Your task to perform on an android device: Check the news Image 0: 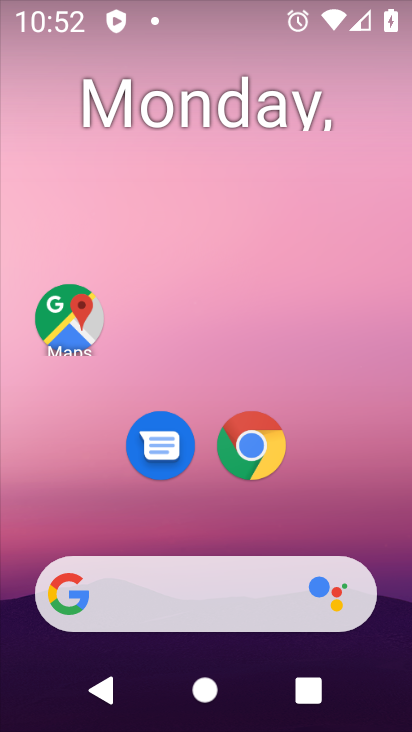
Step 0: click (258, 444)
Your task to perform on an android device: Check the news Image 1: 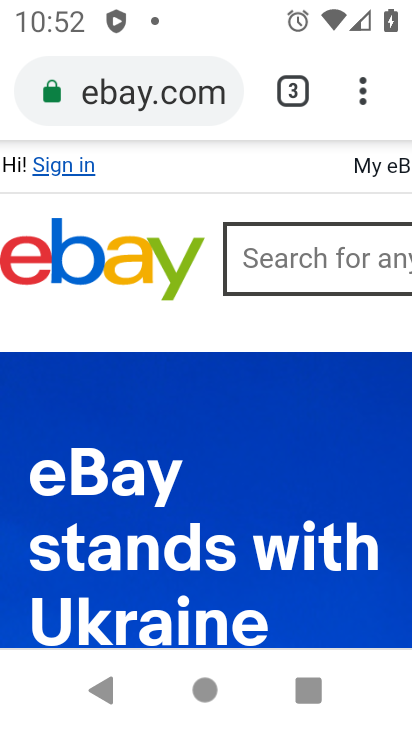
Step 1: click (293, 88)
Your task to perform on an android device: Check the news Image 2: 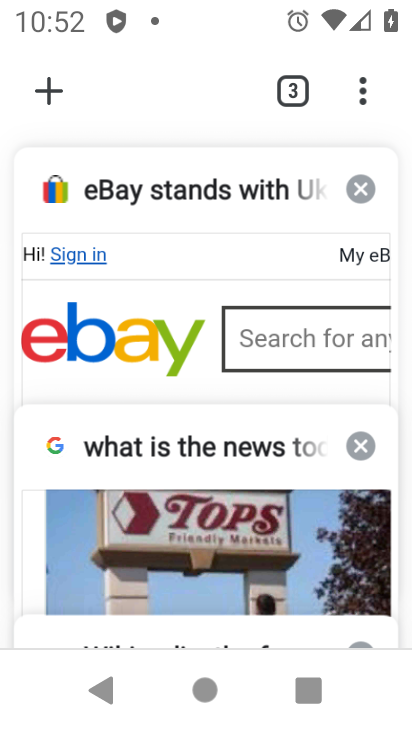
Step 2: click (51, 80)
Your task to perform on an android device: Check the news Image 3: 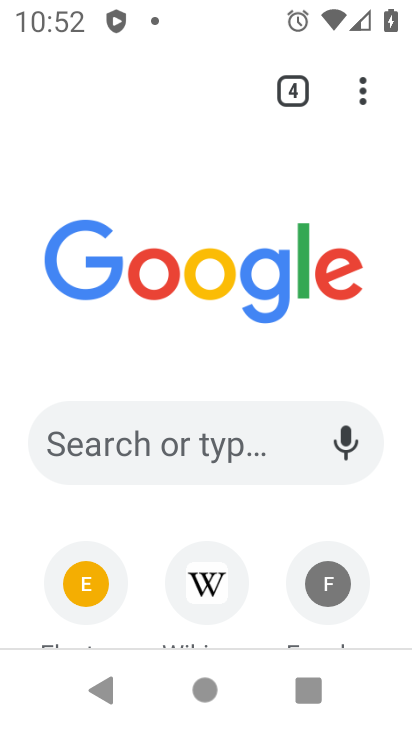
Step 3: click (163, 439)
Your task to perform on an android device: Check the news Image 4: 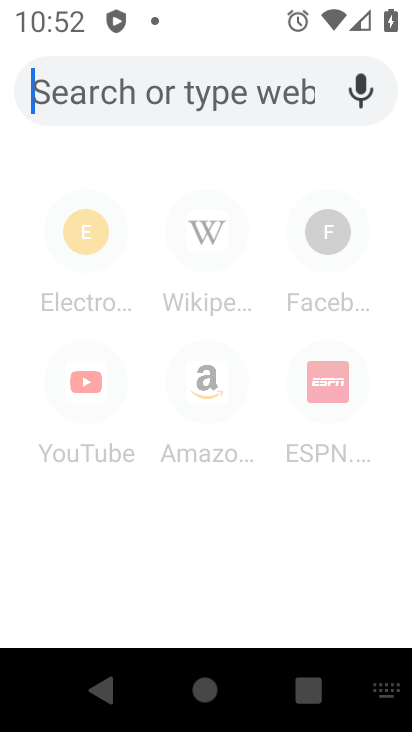
Step 4: type "news"
Your task to perform on an android device: Check the news Image 5: 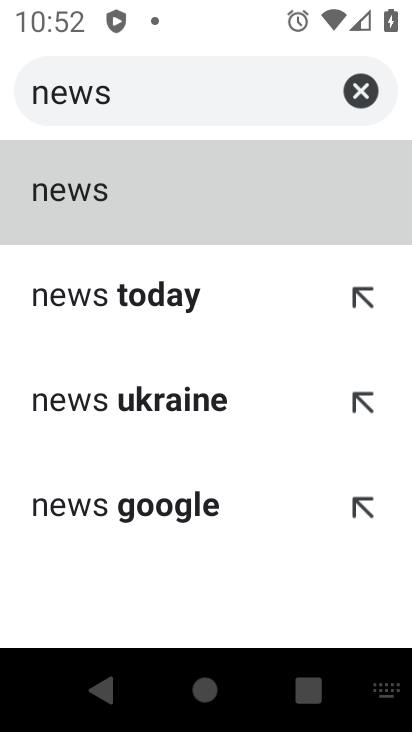
Step 5: click (109, 165)
Your task to perform on an android device: Check the news Image 6: 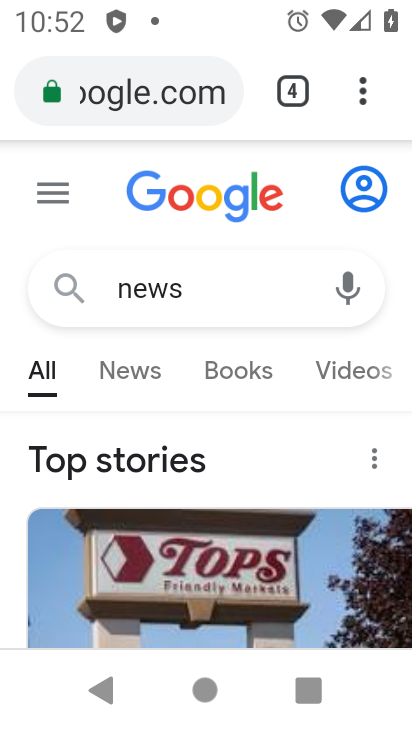
Step 6: click (139, 363)
Your task to perform on an android device: Check the news Image 7: 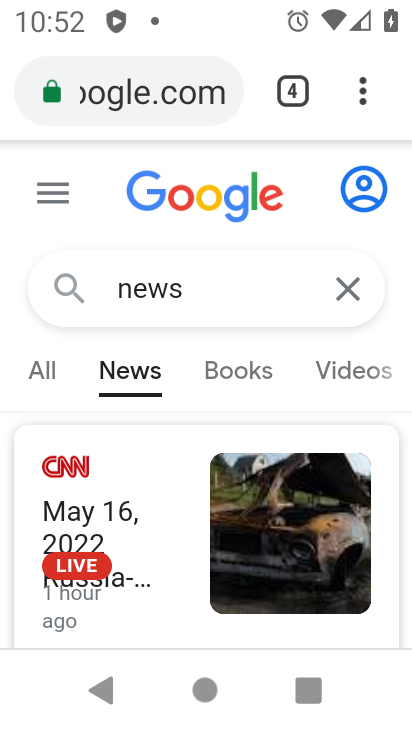
Step 7: task complete